Your task to perform on an android device: Go to calendar. Show me events next week Image 0: 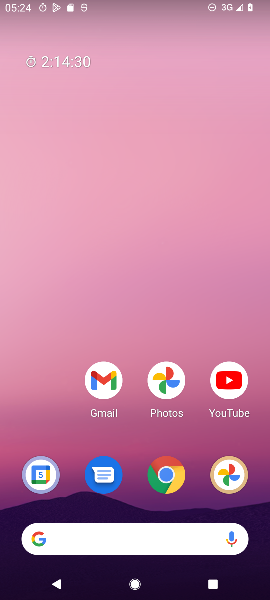
Step 0: press home button
Your task to perform on an android device: Go to calendar. Show me events next week Image 1: 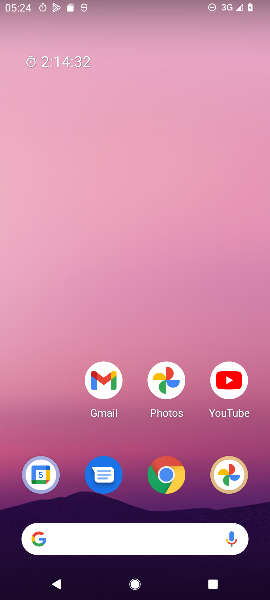
Step 1: drag from (40, 397) to (37, 200)
Your task to perform on an android device: Go to calendar. Show me events next week Image 2: 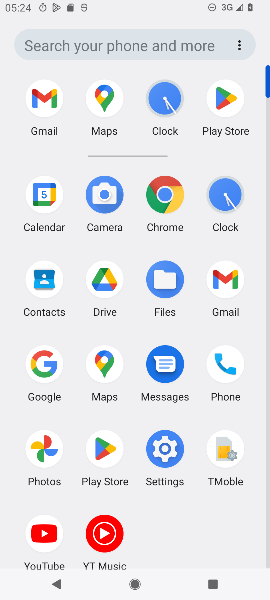
Step 2: click (42, 202)
Your task to perform on an android device: Go to calendar. Show me events next week Image 3: 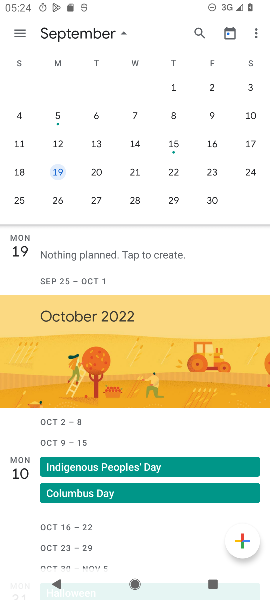
Step 3: task complete